Your task to perform on an android device: turn off location history Image 0: 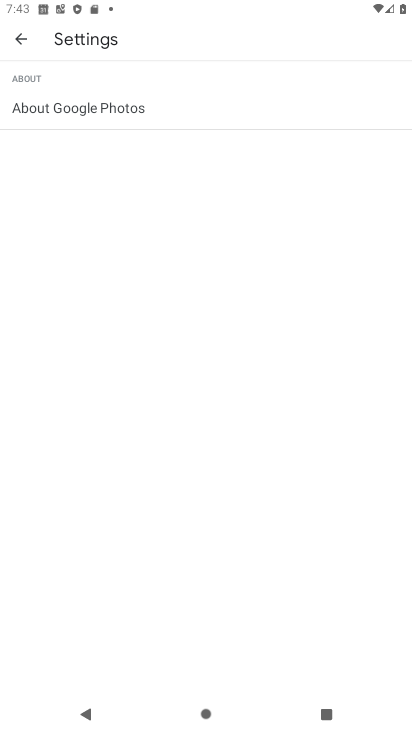
Step 0: press home button
Your task to perform on an android device: turn off location history Image 1: 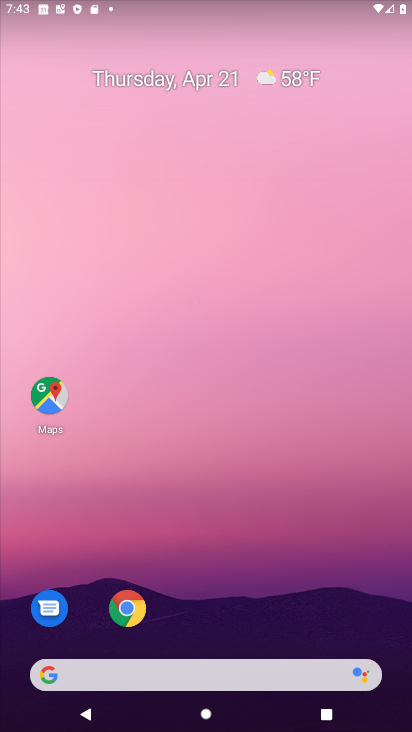
Step 1: drag from (294, 604) to (328, 90)
Your task to perform on an android device: turn off location history Image 2: 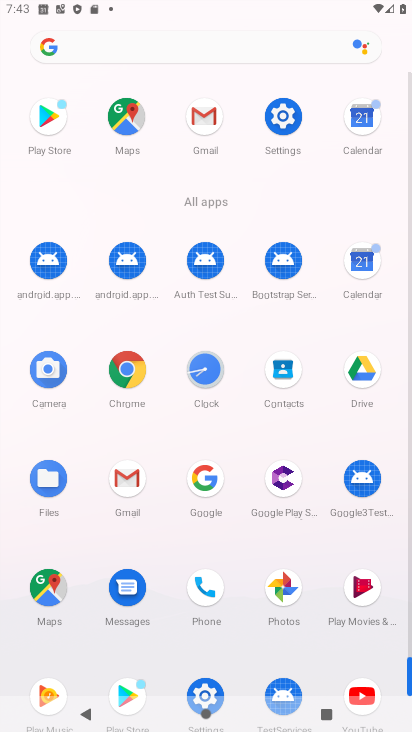
Step 2: drag from (236, 542) to (272, 380)
Your task to perform on an android device: turn off location history Image 3: 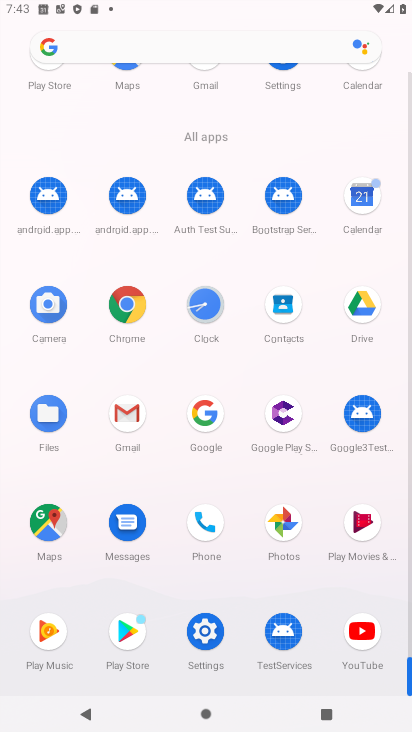
Step 3: click (207, 628)
Your task to perform on an android device: turn off location history Image 4: 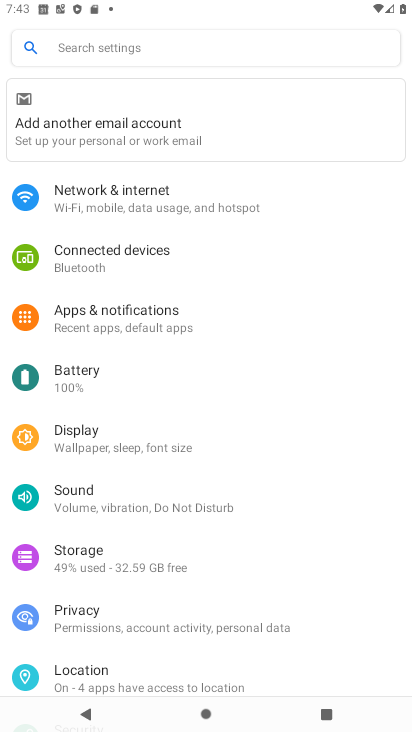
Step 4: click (184, 674)
Your task to perform on an android device: turn off location history Image 5: 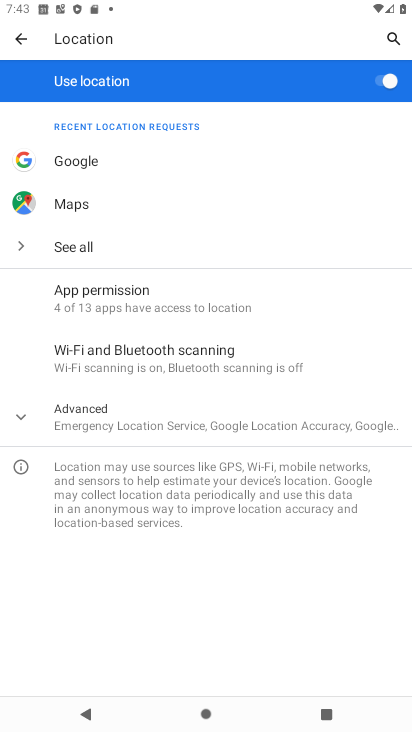
Step 5: click (15, 413)
Your task to perform on an android device: turn off location history Image 6: 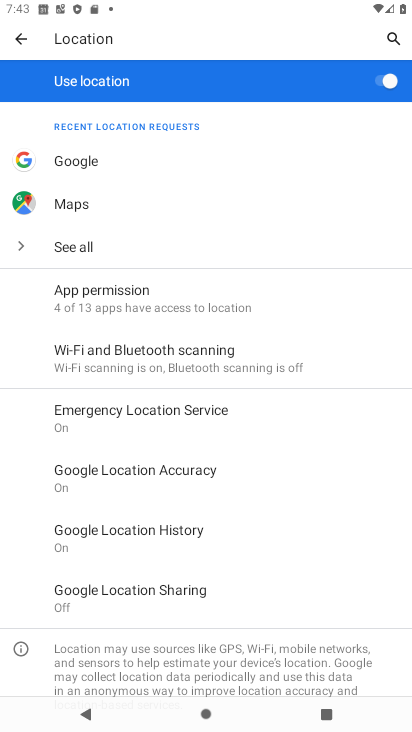
Step 6: click (90, 528)
Your task to perform on an android device: turn off location history Image 7: 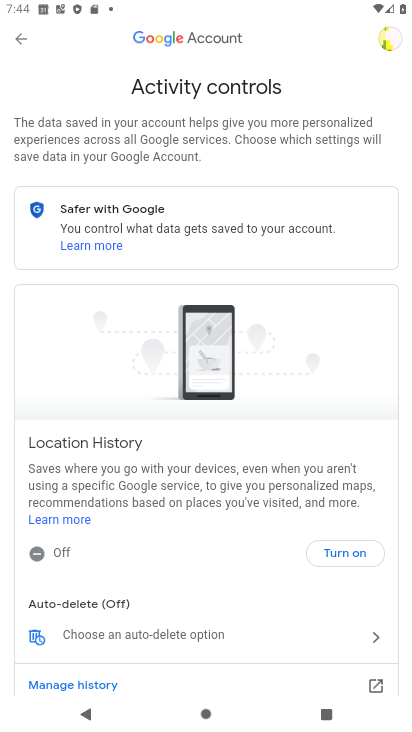
Step 7: task complete